Your task to perform on an android device: Go to CNN.com Image 0: 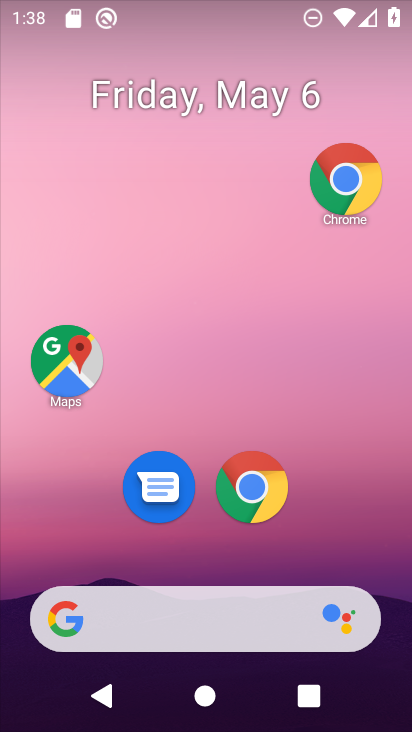
Step 0: click (293, 500)
Your task to perform on an android device: Go to CNN.com Image 1: 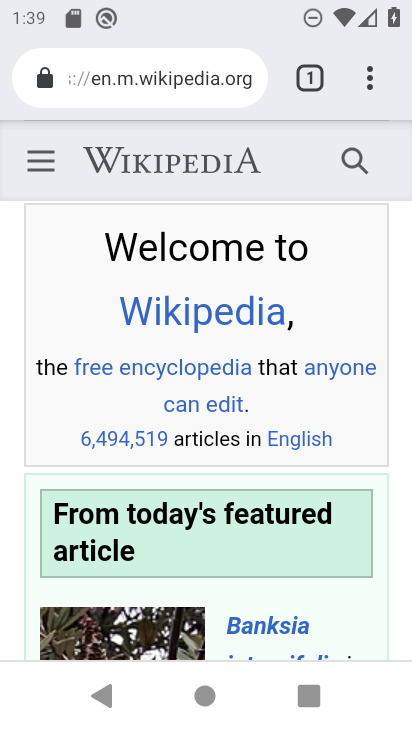
Step 1: click (217, 73)
Your task to perform on an android device: Go to CNN.com Image 2: 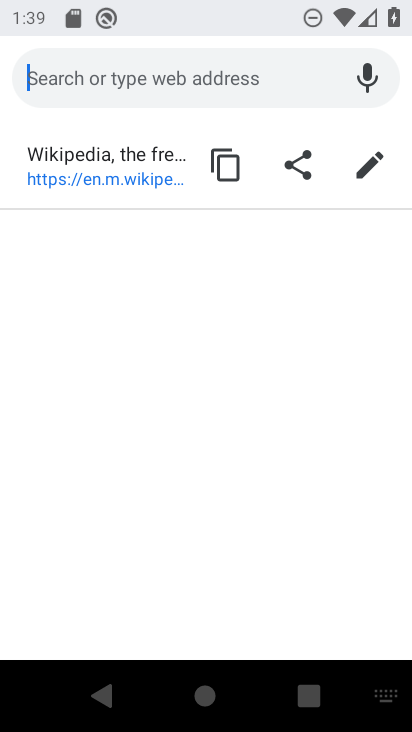
Step 2: type "cnn.com"
Your task to perform on an android device: Go to CNN.com Image 3: 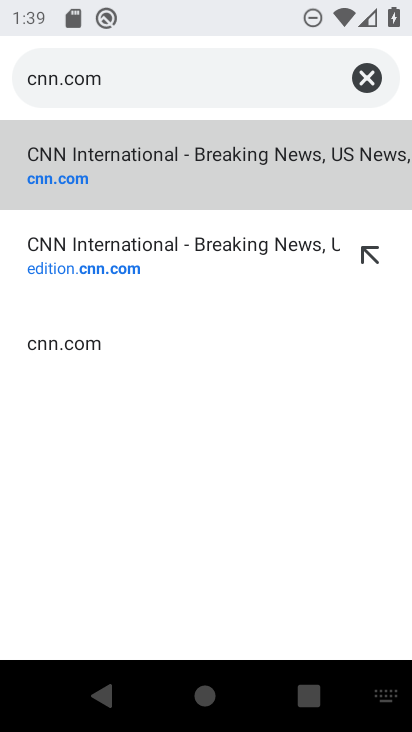
Step 3: click (198, 184)
Your task to perform on an android device: Go to CNN.com Image 4: 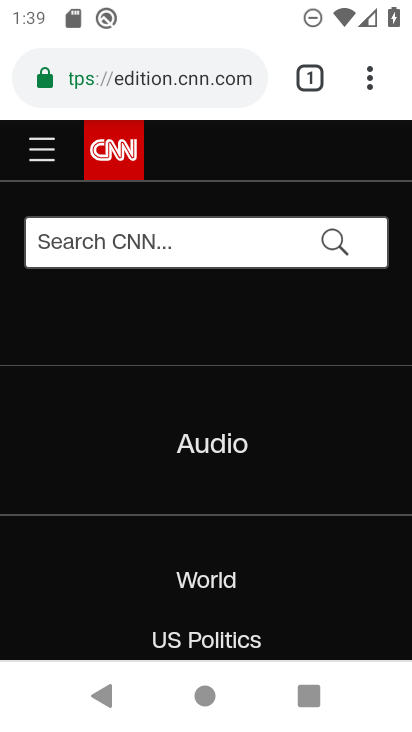
Step 4: task complete